Your task to perform on an android device: toggle airplane mode Image 0: 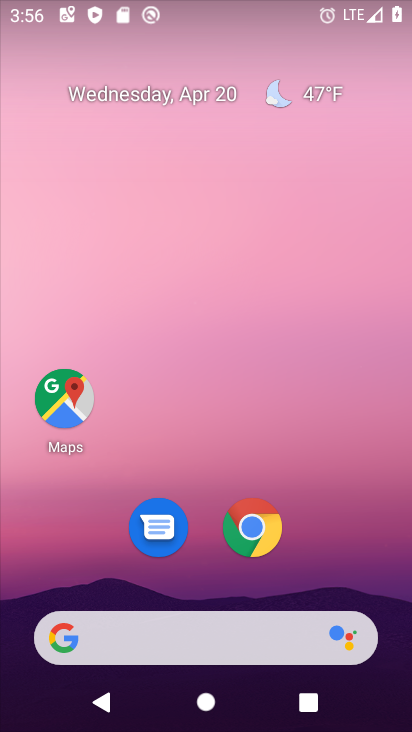
Step 0: drag from (277, 570) to (236, 98)
Your task to perform on an android device: toggle airplane mode Image 1: 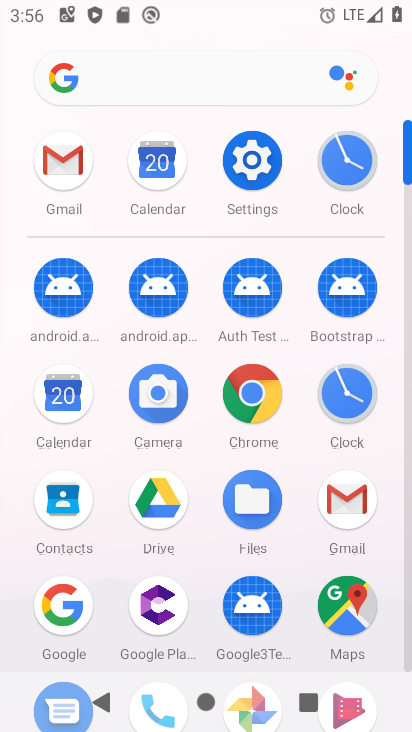
Step 1: click (255, 166)
Your task to perform on an android device: toggle airplane mode Image 2: 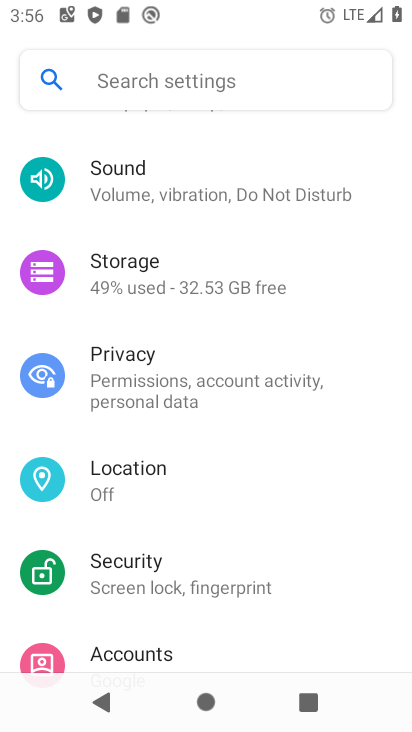
Step 2: drag from (207, 605) to (169, 330)
Your task to perform on an android device: toggle airplane mode Image 3: 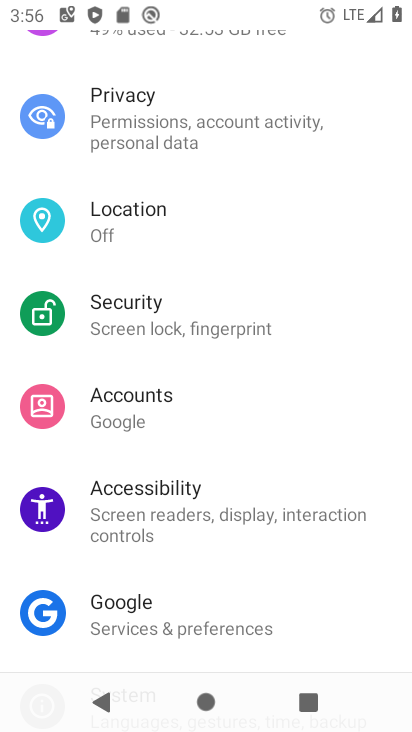
Step 3: drag from (169, 161) to (172, 504)
Your task to perform on an android device: toggle airplane mode Image 4: 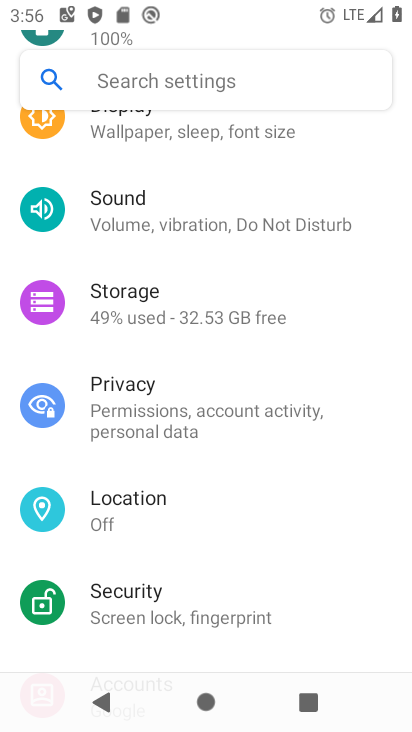
Step 4: drag from (208, 167) to (191, 648)
Your task to perform on an android device: toggle airplane mode Image 5: 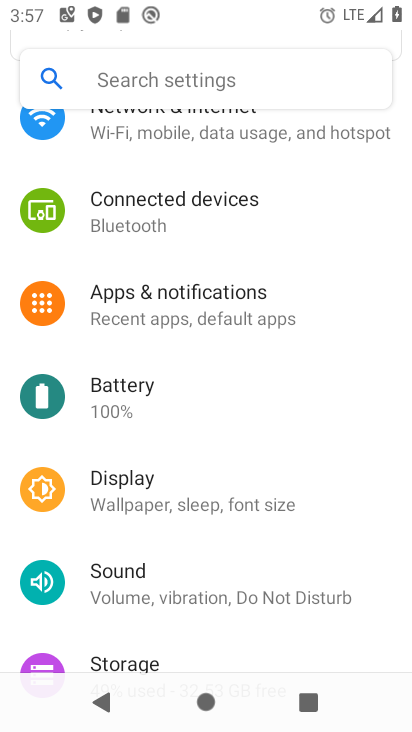
Step 5: drag from (196, 426) to (198, 659)
Your task to perform on an android device: toggle airplane mode Image 6: 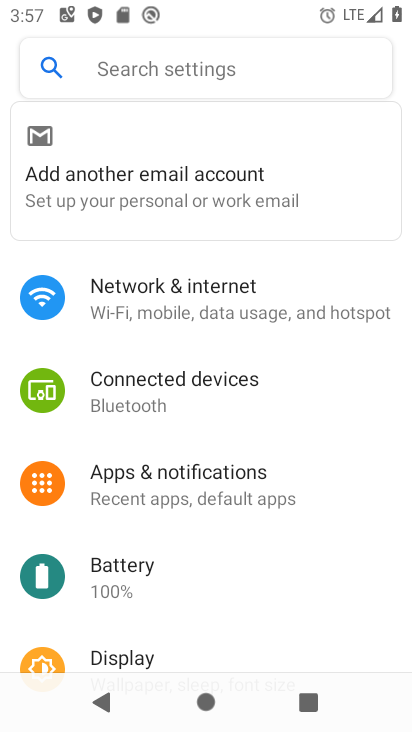
Step 6: click (230, 299)
Your task to perform on an android device: toggle airplane mode Image 7: 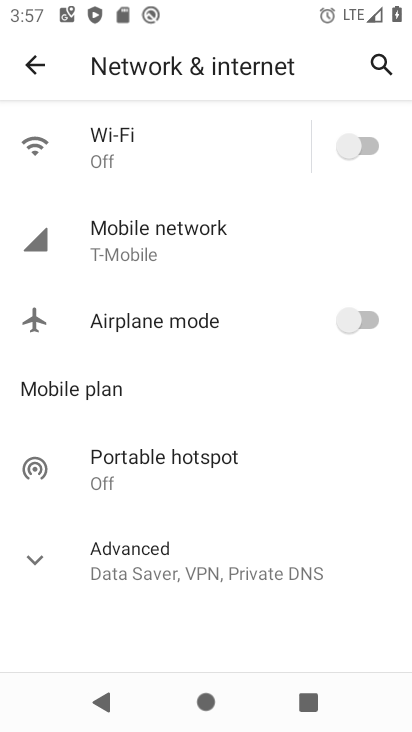
Step 7: click (349, 326)
Your task to perform on an android device: toggle airplane mode Image 8: 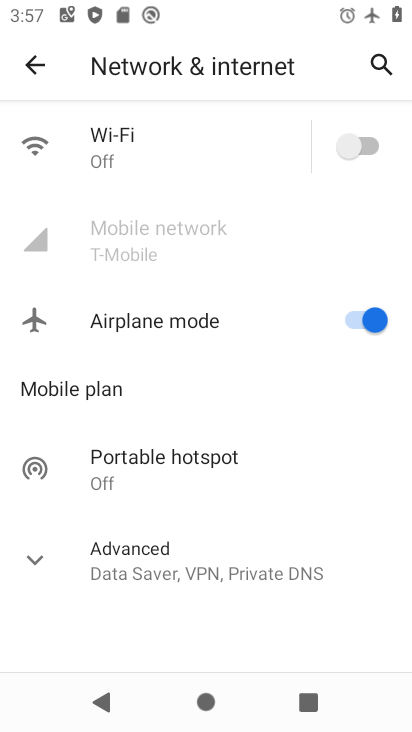
Step 8: task complete